Your task to perform on an android device: Open display settings Image 0: 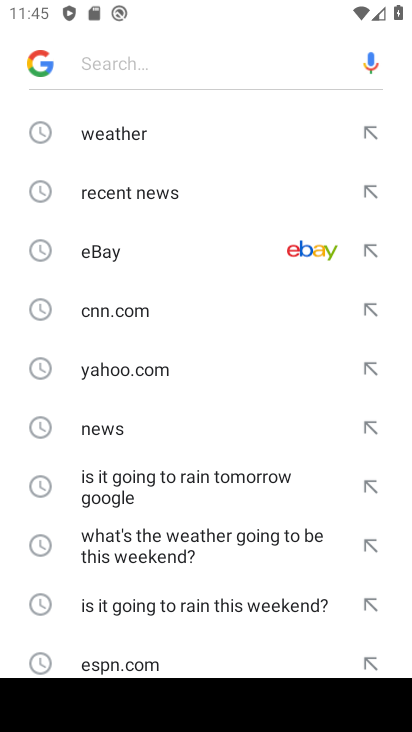
Step 0: press home button
Your task to perform on an android device: Open display settings Image 1: 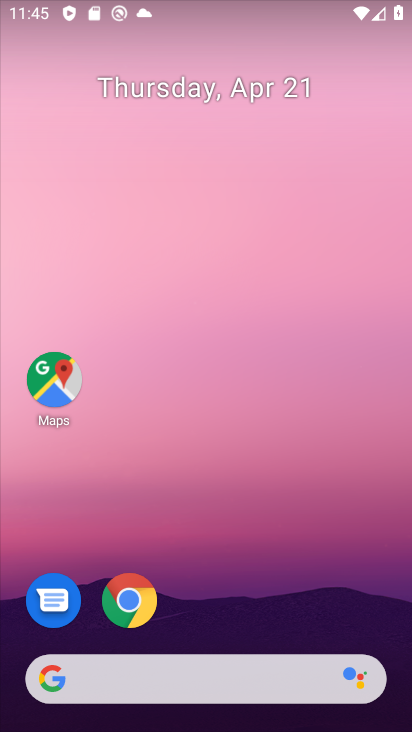
Step 1: drag from (187, 545) to (235, 182)
Your task to perform on an android device: Open display settings Image 2: 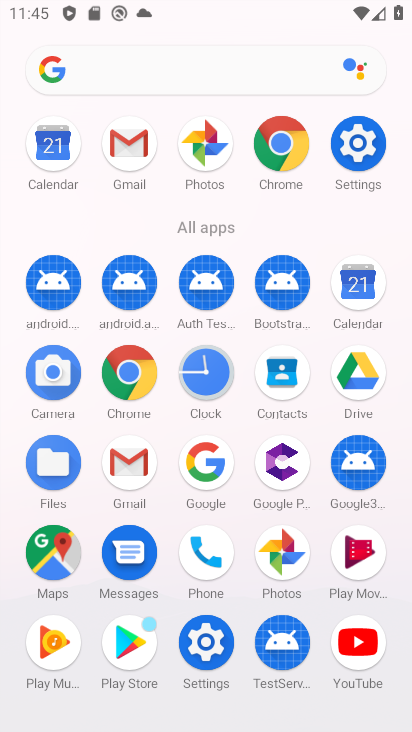
Step 2: click (358, 159)
Your task to perform on an android device: Open display settings Image 3: 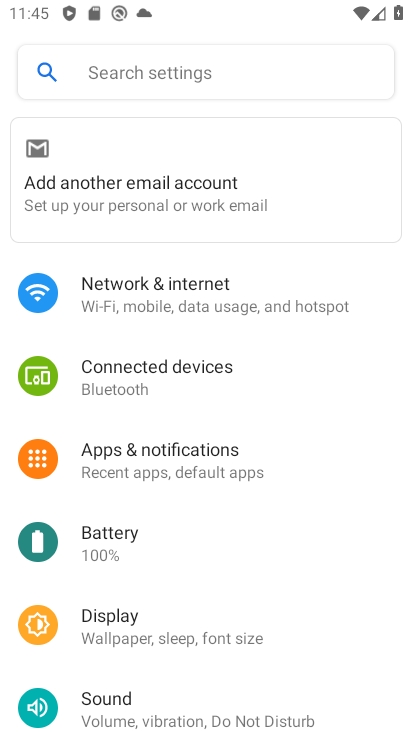
Step 3: click (149, 630)
Your task to perform on an android device: Open display settings Image 4: 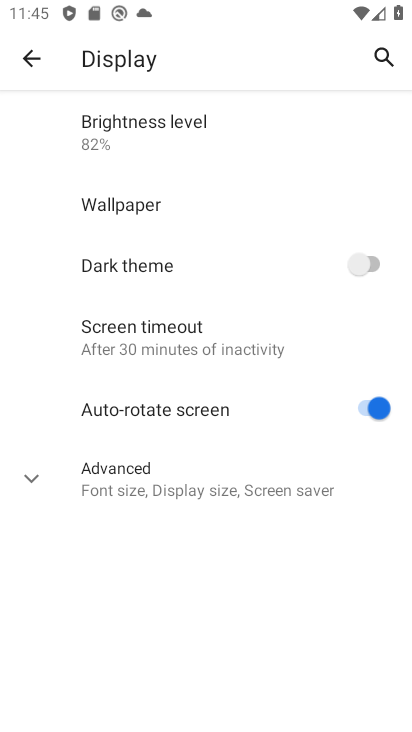
Step 4: task complete